Your task to perform on an android device: Open Maps and search for coffee Image 0: 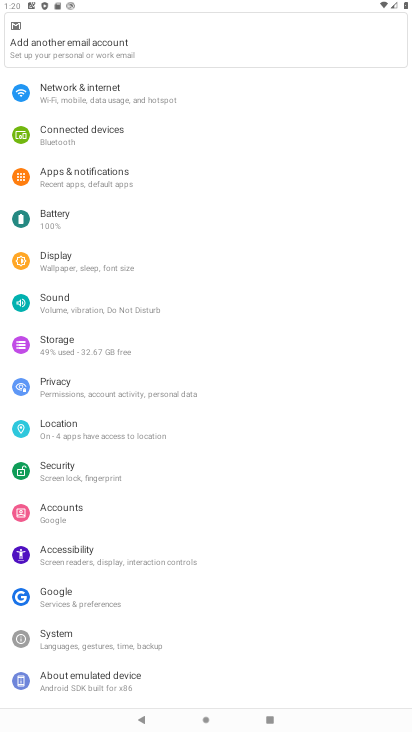
Step 0: press home button
Your task to perform on an android device: Open Maps and search for coffee Image 1: 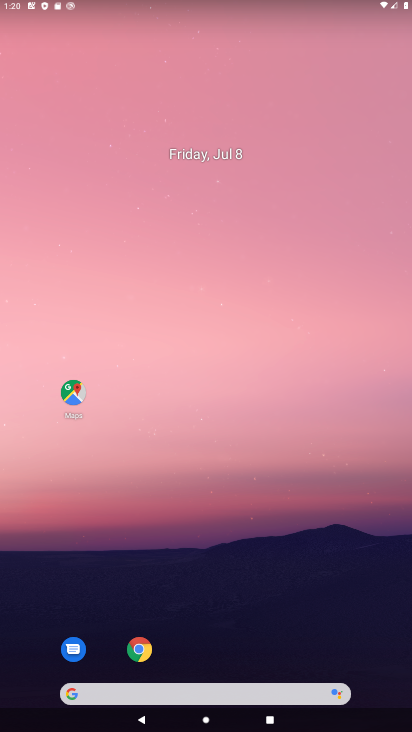
Step 1: click (76, 398)
Your task to perform on an android device: Open Maps and search for coffee Image 2: 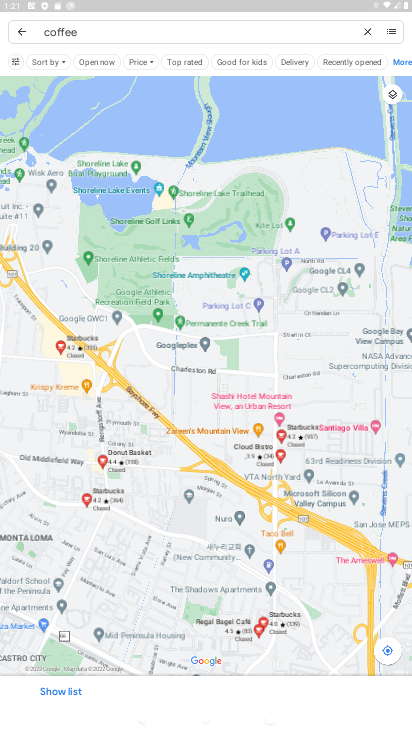
Step 2: click (156, 32)
Your task to perform on an android device: Open Maps and search for coffee Image 3: 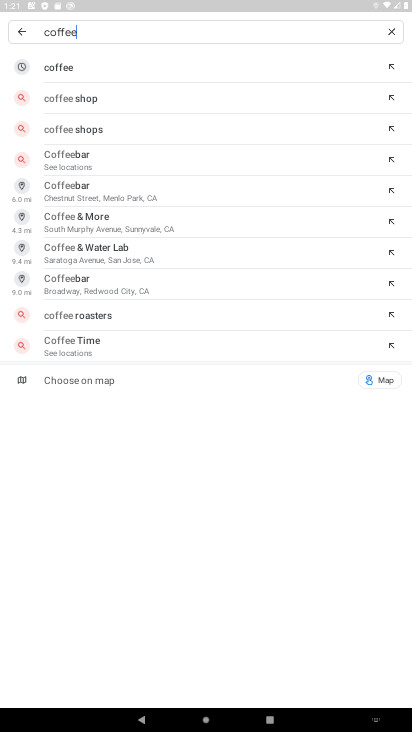
Step 3: click (55, 71)
Your task to perform on an android device: Open Maps and search for coffee Image 4: 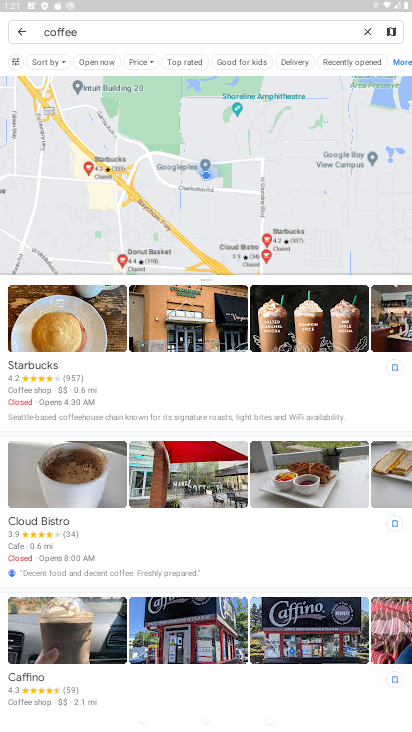
Step 4: task complete